Your task to perform on an android device: Toggle the flashlight Image 0: 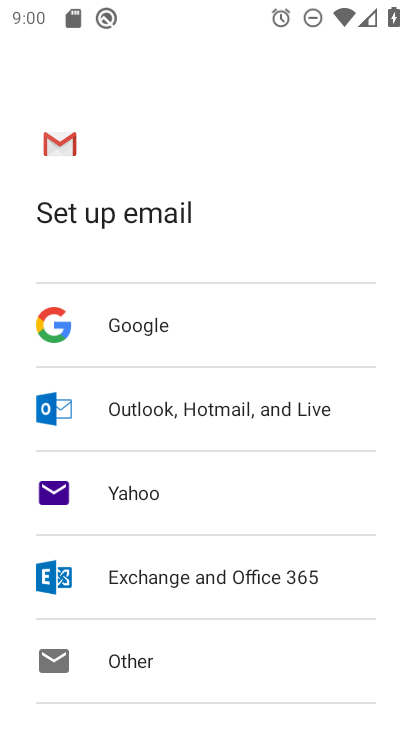
Step 0: press home button
Your task to perform on an android device: Toggle the flashlight Image 1: 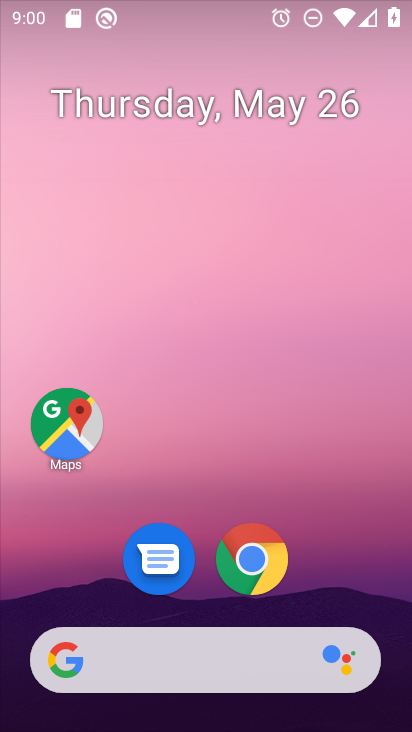
Step 1: drag from (329, 588) to (321, 99)
Your task to perform on an android device: Toggle the flashlight Image 2: 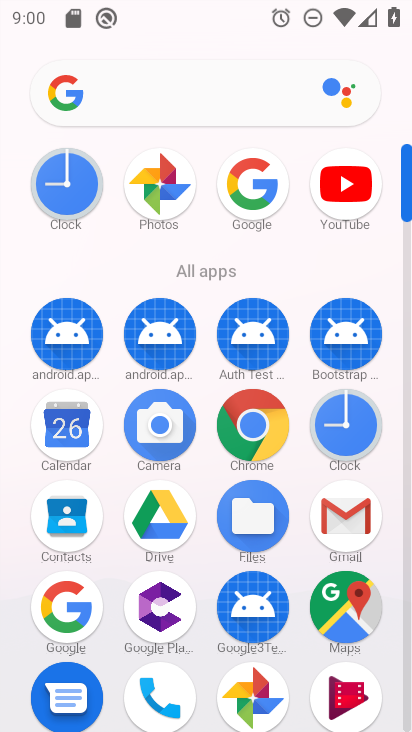
Step 2: drag from (203, 527) to (250, 108)
Your task to perform on an android device: Toggle the flashlight Image 3: 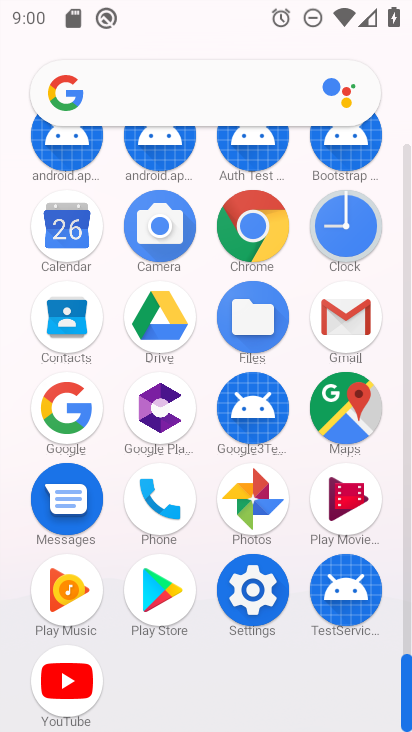
Step 3: click (257, 608)
Your task to perform on an android device: Toggle the flashlight Image 4: 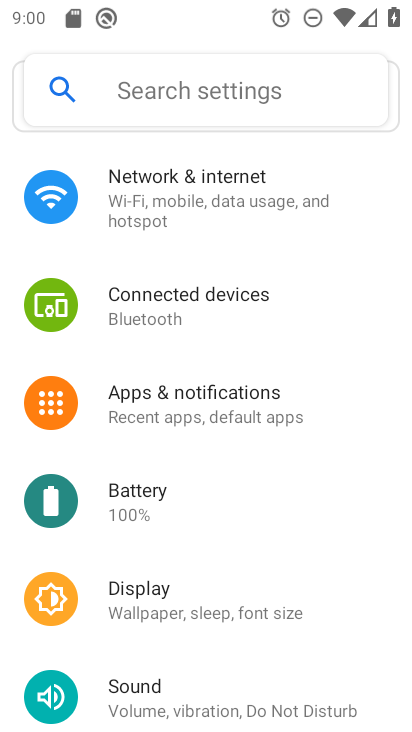
Step 4: click (185, 107)
Your task to perform on an android device: Toggle the flashlight Image 5: 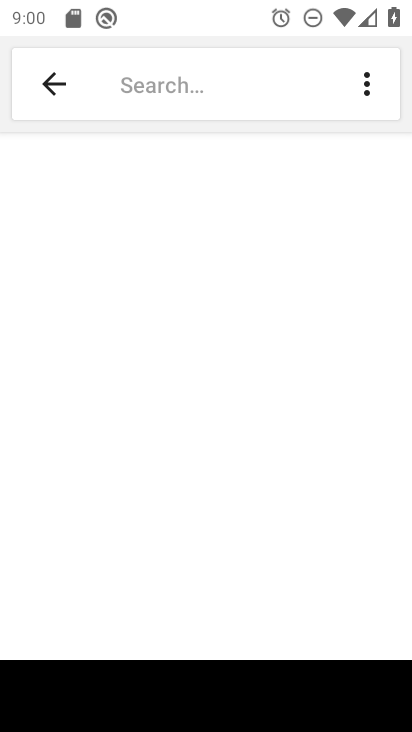
Step 5: type "flash"
Your task to perform on an android device: Toggle the flashlight Image 6: 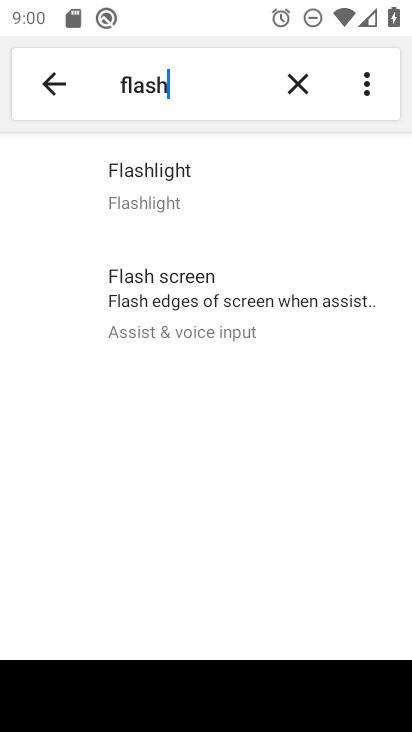
Step 6: task complete